Your task to perform on an android device: Open Google Chrome Image 0: 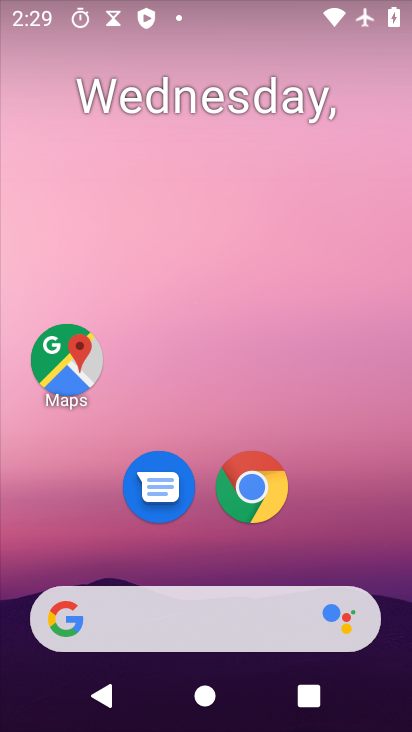
Step 0: click (404, 378)
Your task to perform on an android device: Open Google Chrome Image 1: 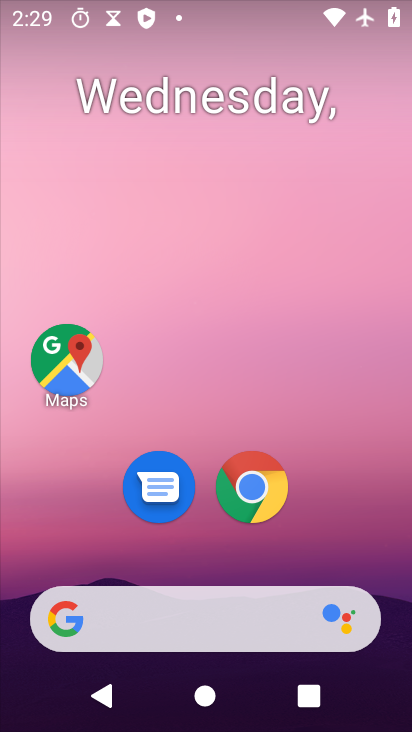
Step 1: drag from (310, 644) to (282, 123)
Your task to perform on an android device: Open Google Chrome Image 2: 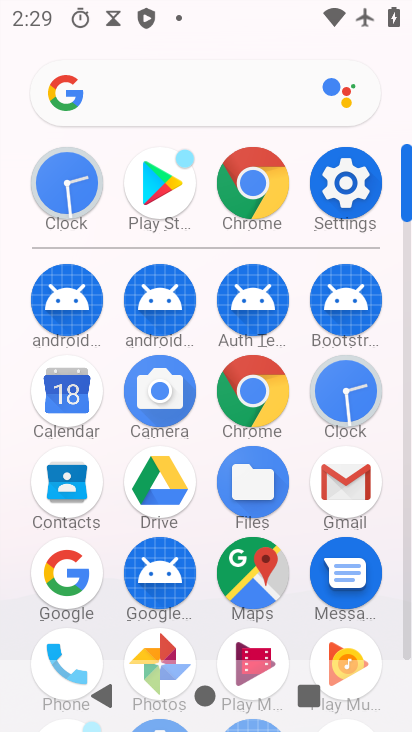
Step 2: click (246, 196)
Your task to perform on an android device: Open Google Chrome Image 3: 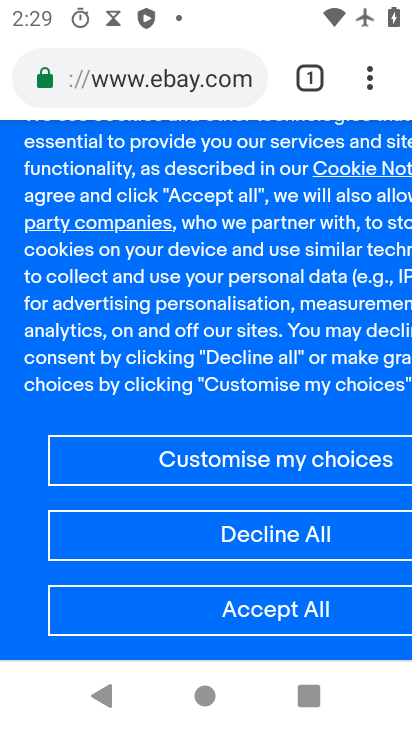
Step 3: drag from (369, 85) to (91, 142)
Your task to perform on an android device: Open Google Chrome Image 4: 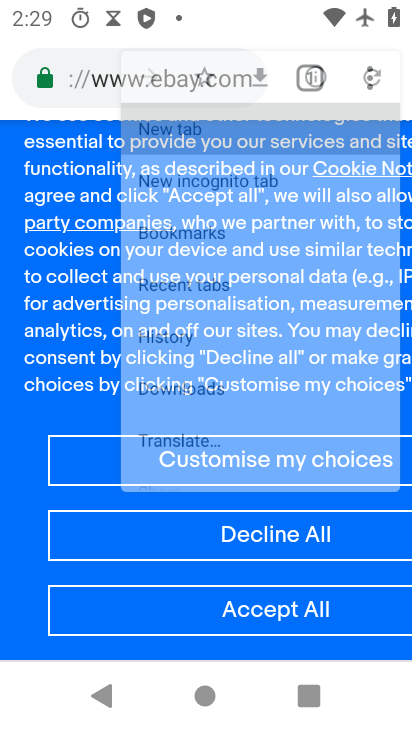
Step 4: click (82, 152)
Your task to perform on an android device: Open Google Chrome Image 5: 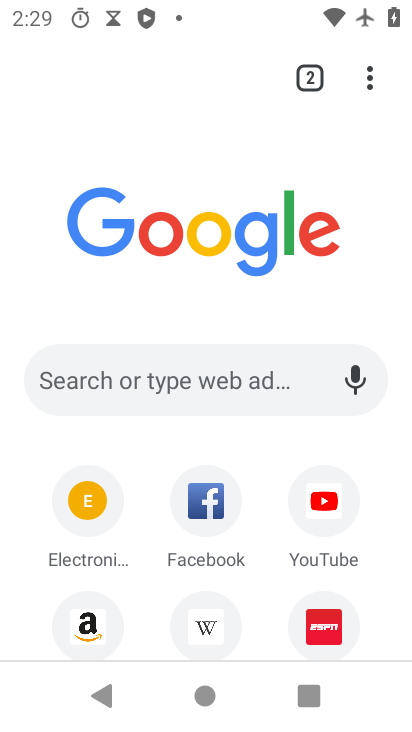
Step 5: task complete